Your task to perform on an android device: change text size in settings app Image 0: 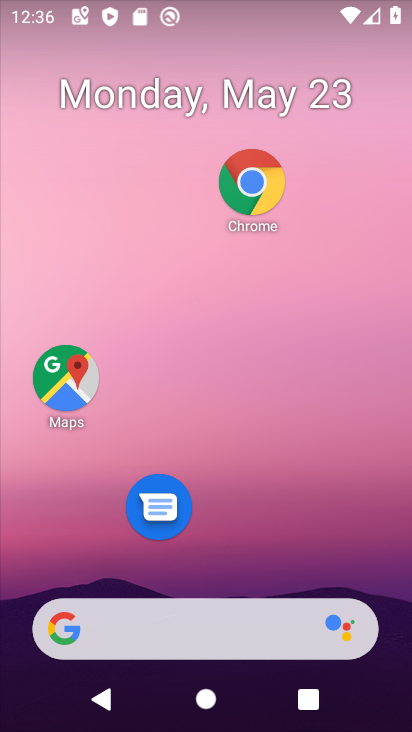
Step 0: drag from (290, 510) to (401, 19)
Your task to perform on an android device: change text size in settings app Image 1: 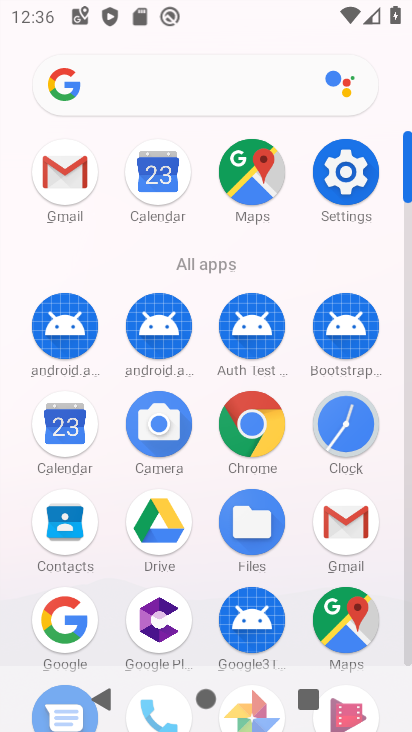
Step 1: click (369, 171)
Your task to perform on an android device: change text size in settings app Image 2: 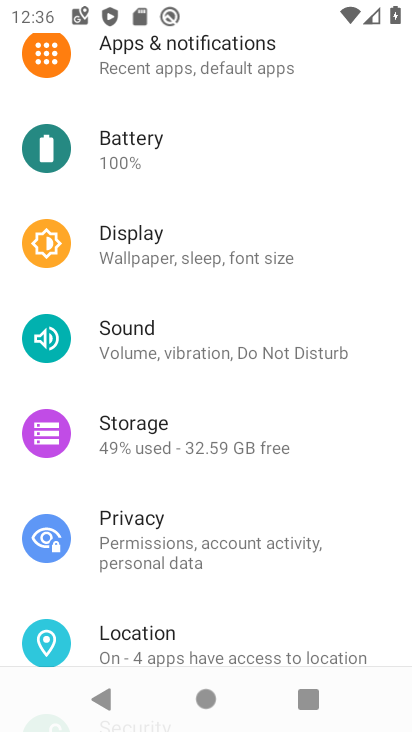
Step 2: click (259, 250)
Your task to perform on an android device: change text size in settings app Image 3: 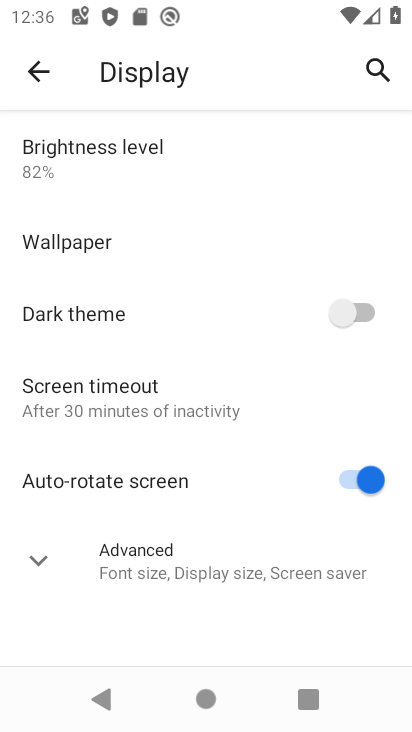
Step 3: click (252, 556)
Your task to perform on an android device: change text size in settings app Image 4: 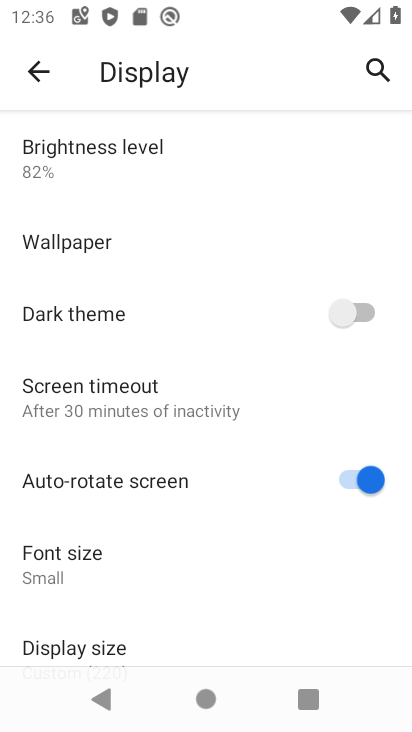
Step 4: click (102, 580)
Your task to perform on an android device: change text size in settings app Image 5: 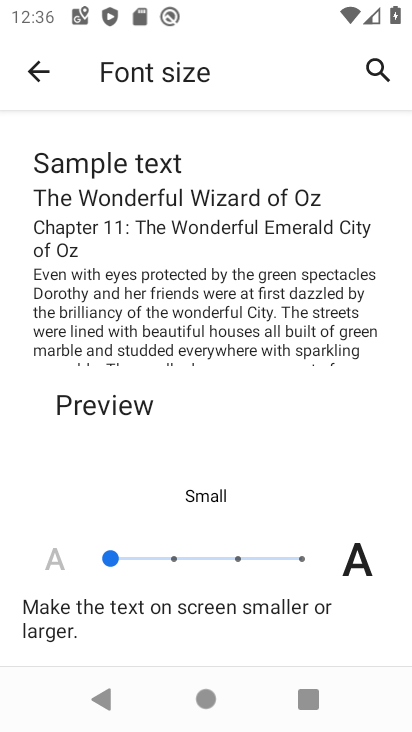
Step 5: click (172, 554)
Your task to perform on an android device: change text size in settings app Image 6: 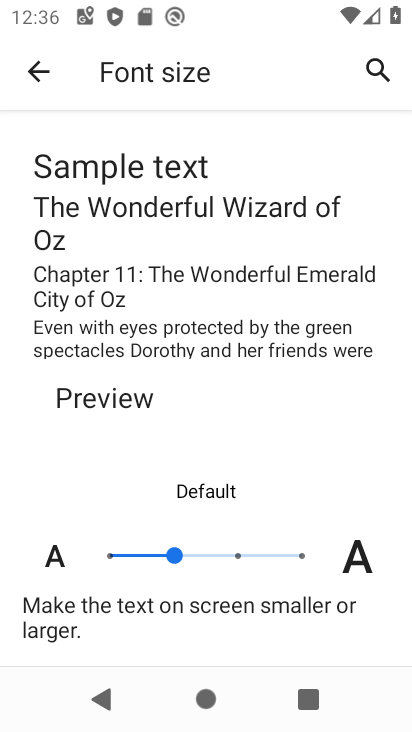
Step 6: task complete